Your task to perform on an android device: turn off notifications in google photos Image 0: 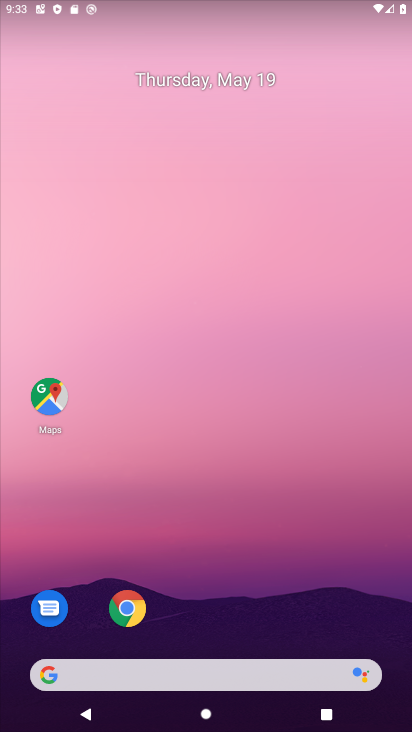
Step 0: drag from (188, 582) to (278, 263)
Your task to perform on an android device: turn off notifications in google photos Image 1: 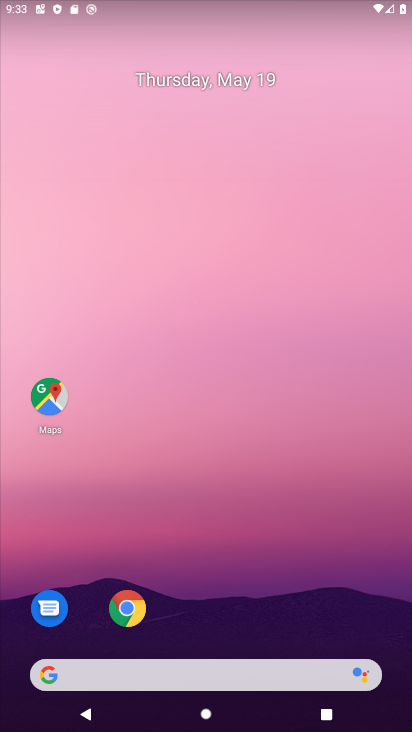
Step 1: drag from (184, 608) to (202, 276)
Your task to perform on an android device: turn off notifications in google photos Image 2: 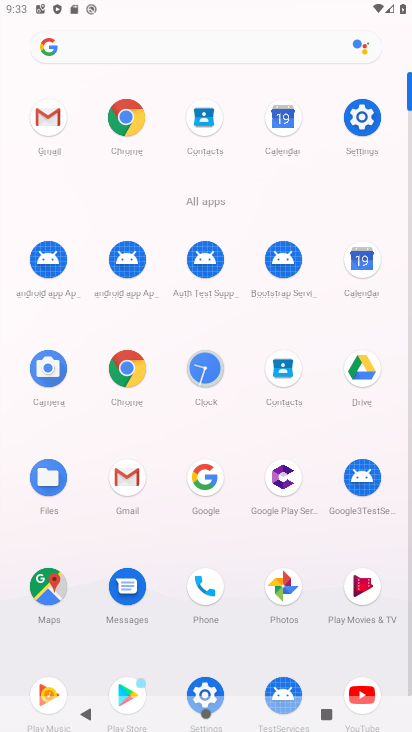
Step 2: drag from (162, 626) to (211, 273)
Your task to perform on an android device: turn off notifications in google photos Image 3: 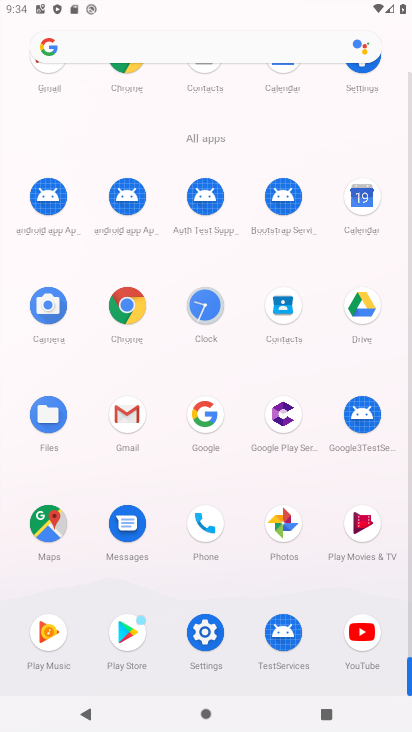
Step 3: click (274, 528)
Your task to perform on an android device: turn off notifications in google photos Image 4: 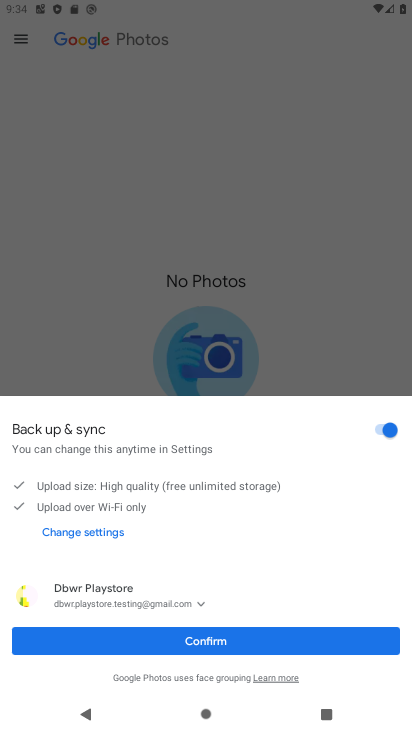
Step 4: click (207, 632)
Your task to perform on an android device: turn off notifications in google photos Image 5: 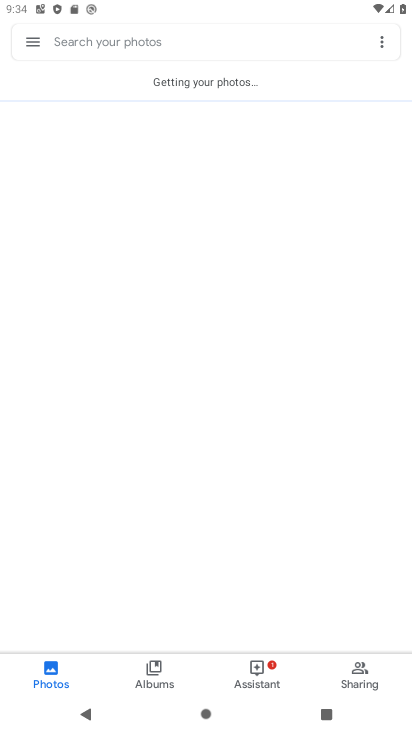
Step 5: click (26, 44)
Your task to perform on an android device: turn off notifications in google photos Image 6: 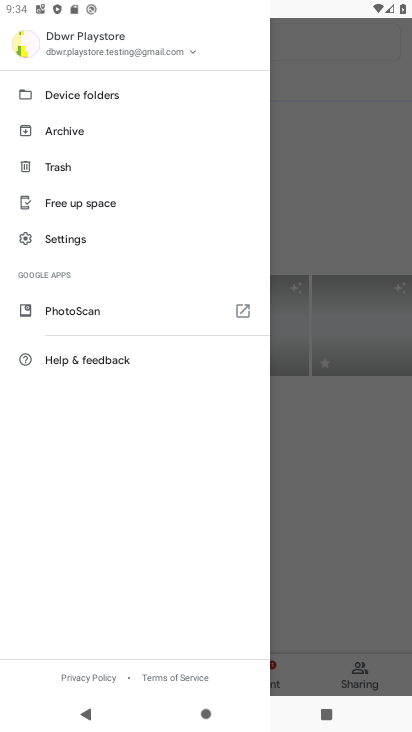
Step 6: click (91, 244)
Your task to perform on an android device: turn off notifications in google photos Image 7: 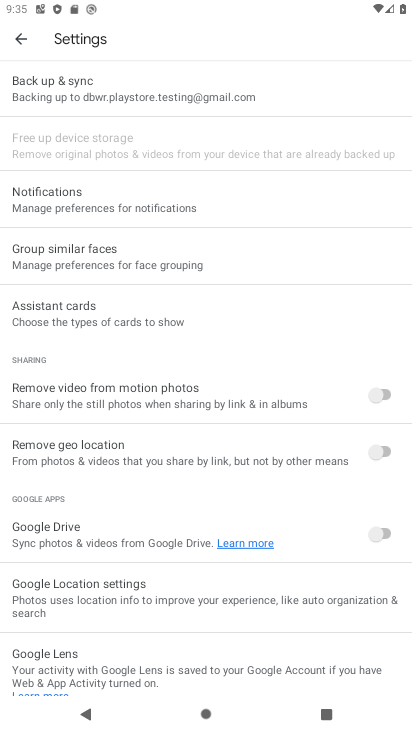
Step 7: click (115, 196)
Your task to perform on an android device: turn off notifications in google photos Image 8: 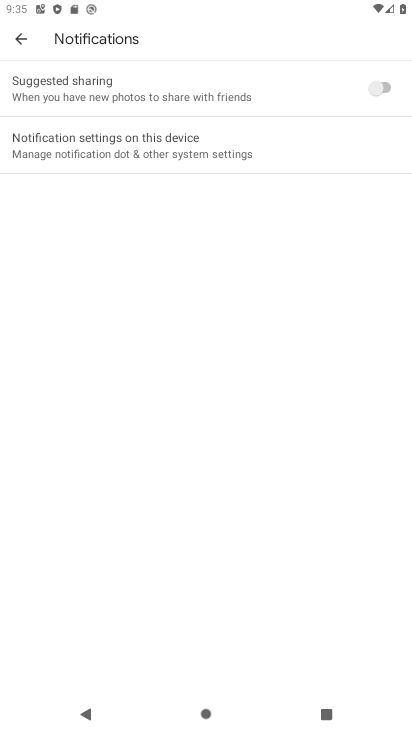
Step 8: click (271, 142)
Your task to perform on an android device: turn off notifications in google photos Image 9: 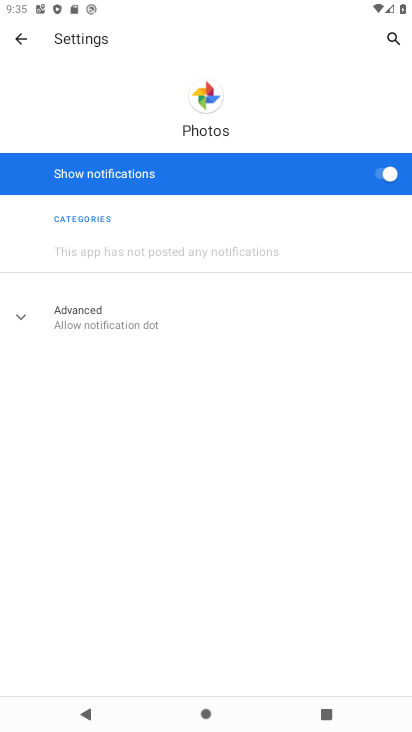
Step 9: task complete